Your task to perform on an android device: manage bookmarks in the chrome app Image 0: 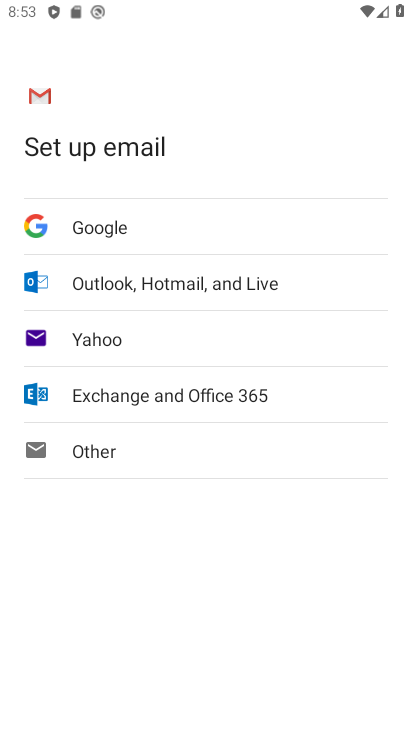
Step 0: press home button
Your task to perform on an android device: manage bookmarks in the chrome app Image 1: 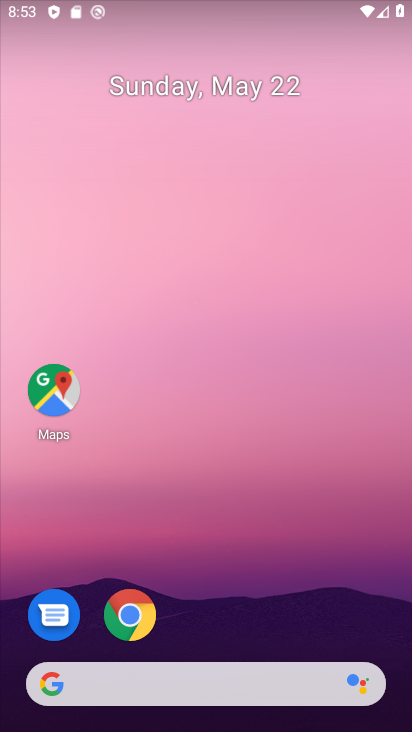
Step 1: click (137, 609)
Your task to perform on an android device: manage bookmarks in the chrome app Image 2: 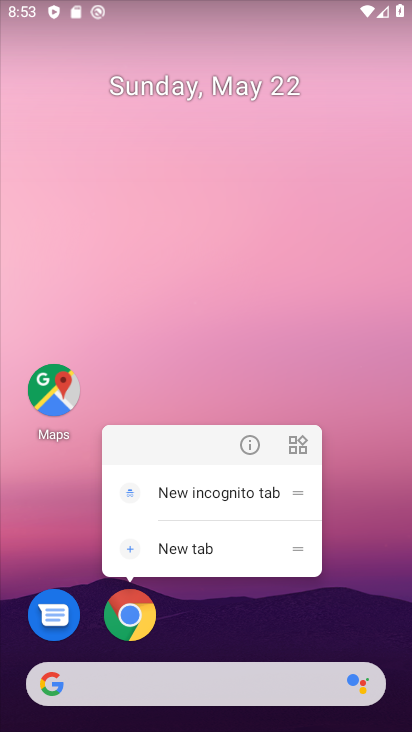
Step 2: click (136, 612)
Your task to perform on an android device: manage bookmarks in the chrome app Image 3: 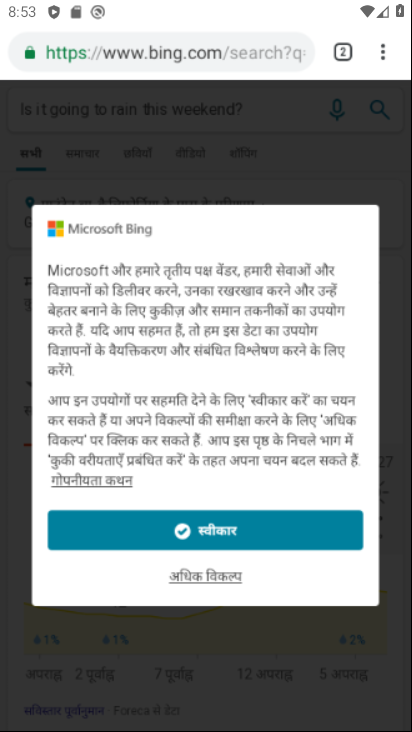
Step 3: click (387, 52)
Your task to perform on an android device: manage bookmarks in the chrome app Image 4: 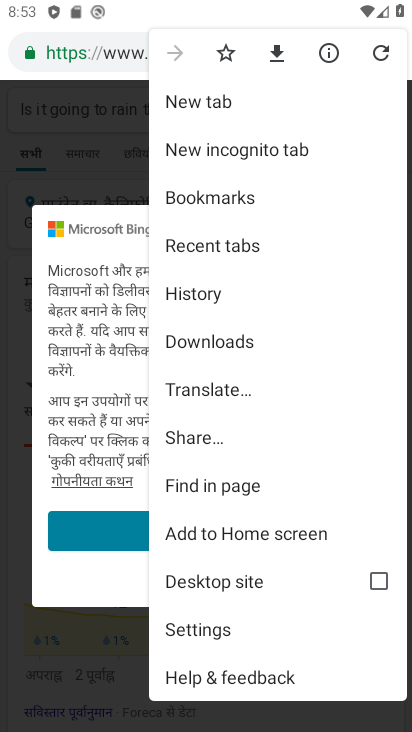
Step 4: click (235, 201)
Your task to perform on an android device: manage bookmarks in the chrome app Image 5: 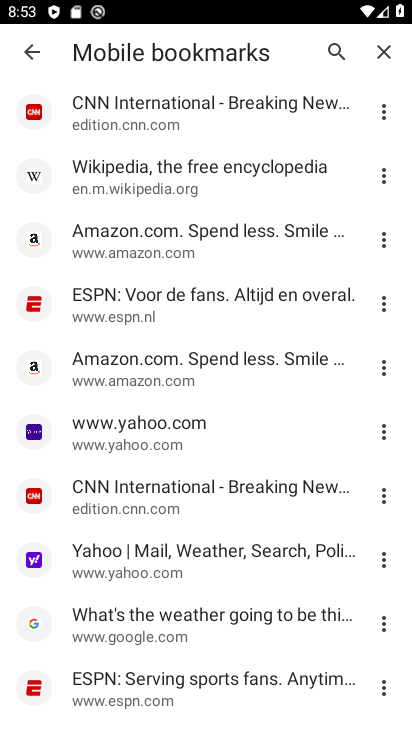
Step 5: click (164, 156)
Your task to perform on an android device: manage bookmarks in the chrome app Image 6: 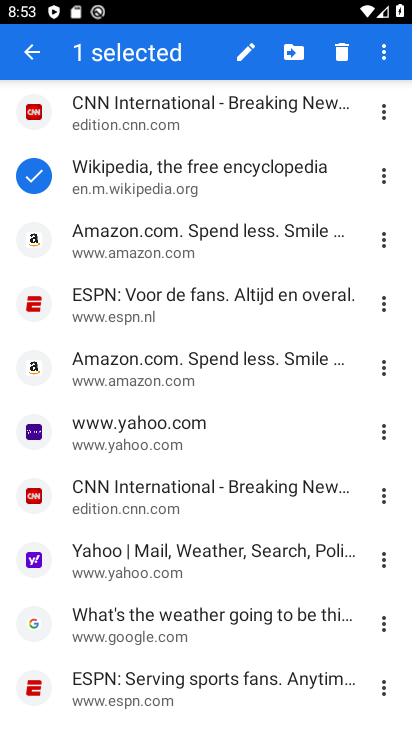
Step 6: click (301, 53)
Your task to perform on an android device: manage bookmarks in the chrome app Image 7: 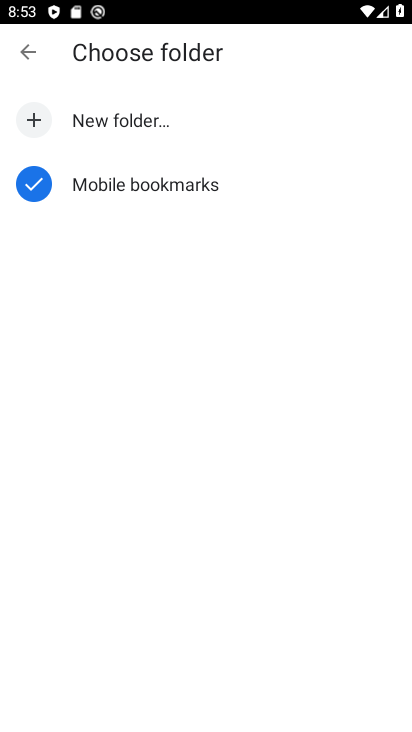
Step 7: click (120, 121)
Your task to perform on an android device: manage bookmarks in the chrome app Image 8: 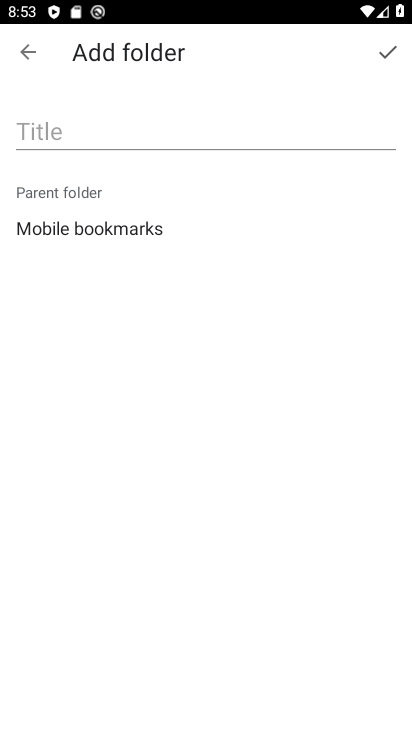
Step 8: click (144, 122)
Your task to perform on an android device: manage bookmarks in the chrome app Image 9: 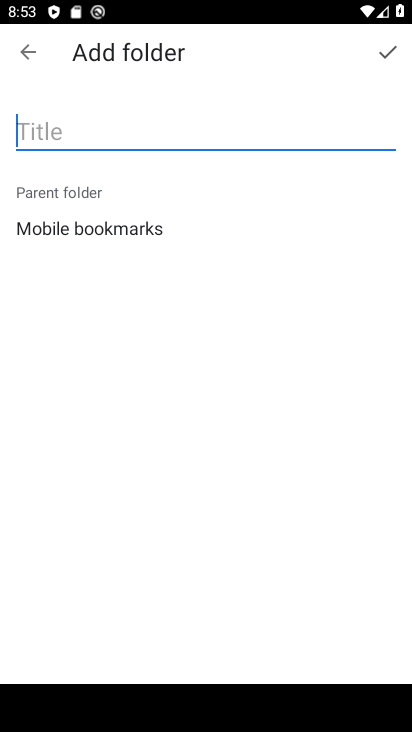
Step 9: type "kjkjjhgff"
Your task to perform on an android device: manage bookmarks in the chrome app Image 10: 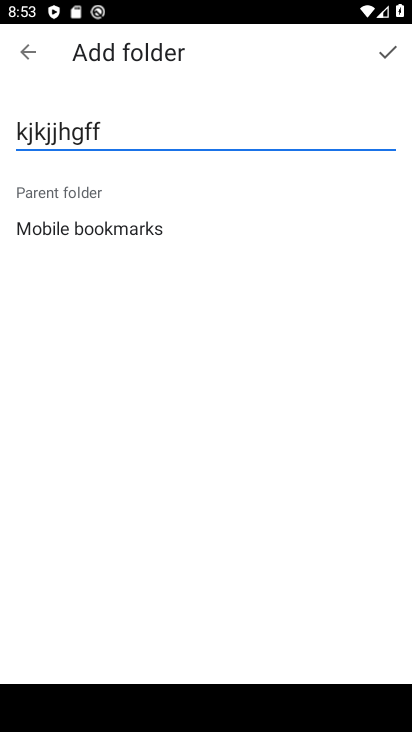
Step 10: click (383, 54)
Your task to perform on an android device: manage bookmarks in the chrome app Image 11: 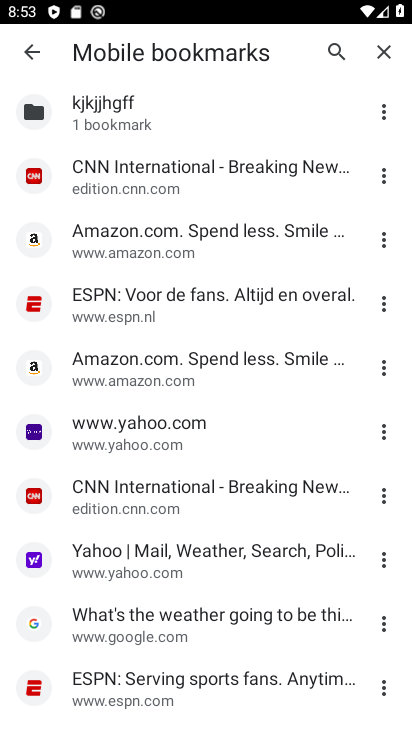
Step 11: task complete